Your task to perform on an android device: toggle location history Image 0: 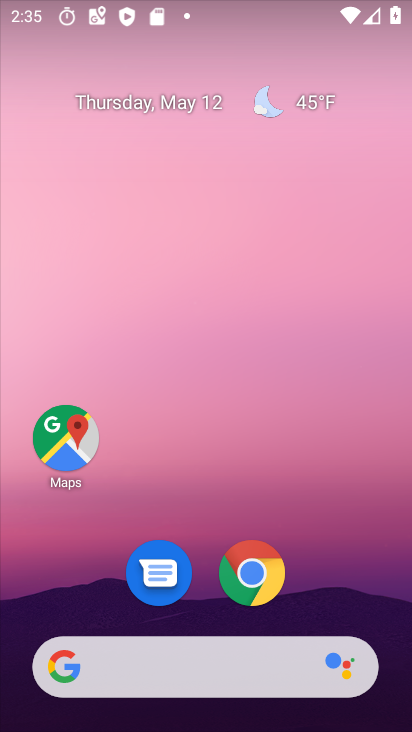
Step 0: drag from (196, 619) to (125, 2)
Your task to perform on an android device: toggle location history Image 1: 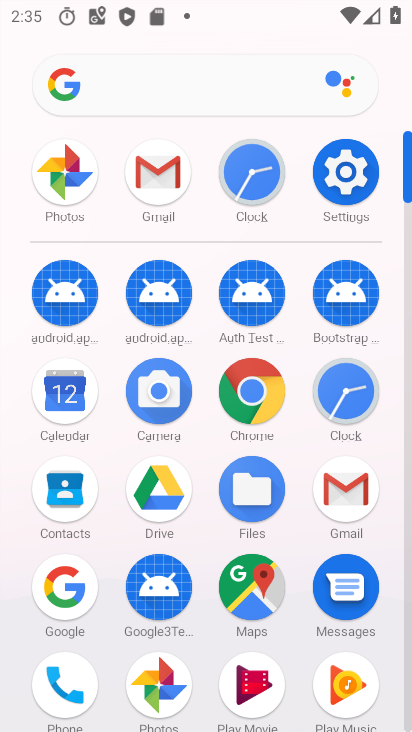
Step 1: click (331, 181)
Your task to perform on an android device: toggle location history Image 2: 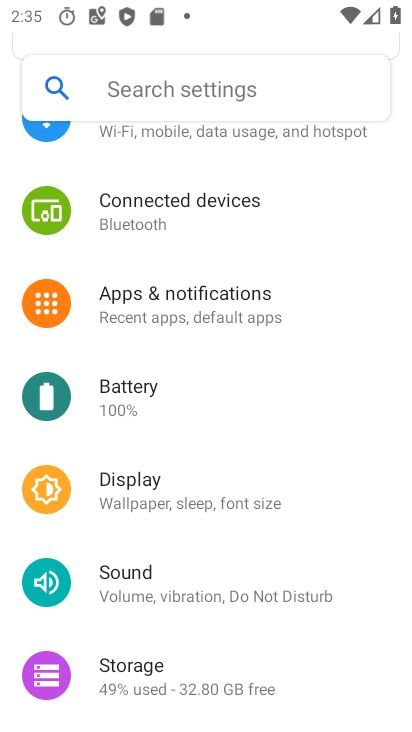
Step 2: drag from (207, 181) to (292, 647)
Your task to perform on an android device: toggle location history Image 3: 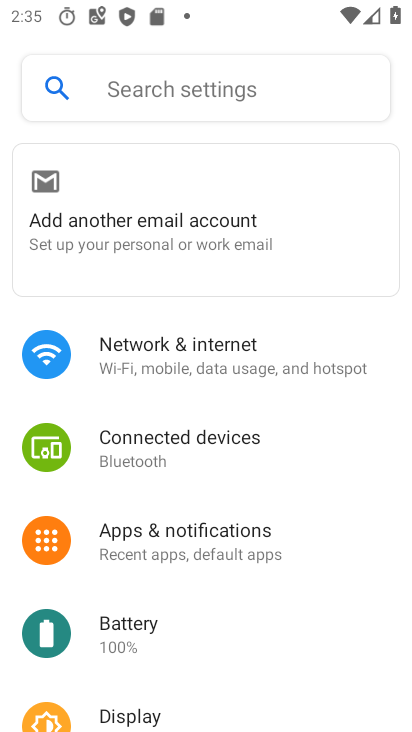
Step 3: drag from (177, 587) to (260, 57)
Your task to perform on an android device: toggle location history Image 4: 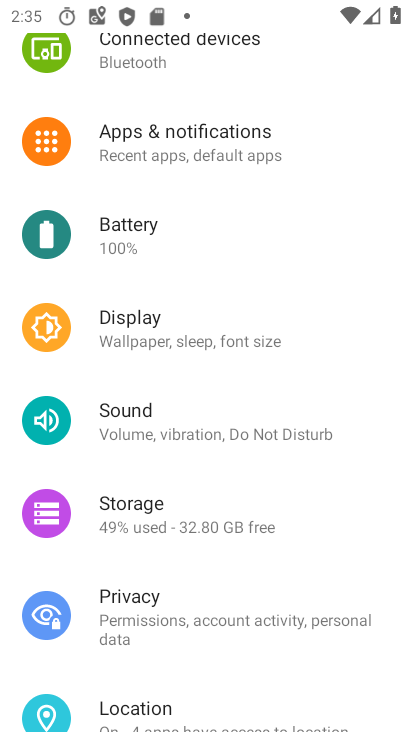
Step 4: click (143, 698)
Your task to perform on an android device: toggle location history Image 5: 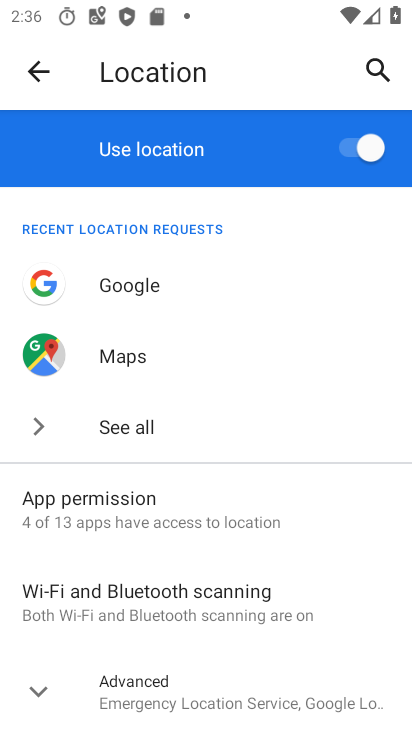
Step 5: drag from (113, 663) to (133, 228)
Your task to perform on an android device: toggle location history Image 6: 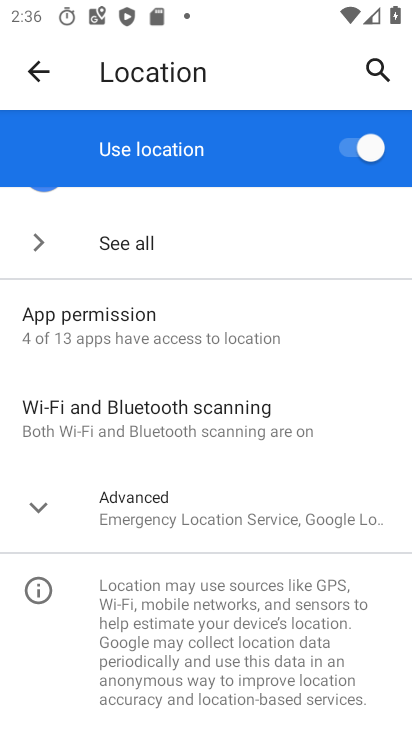
Step 6: click (199, 519)
Your task to perform on an android device: toggle location history Image 7: 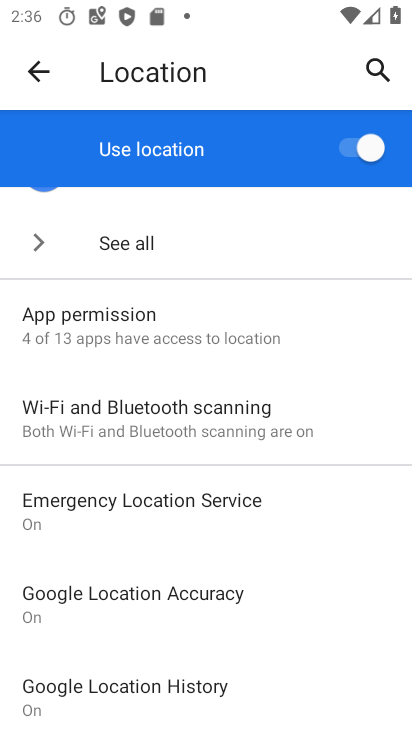
Step 7: click (192, 705)
Your task to perform on an android device: toggle location history Image 8: 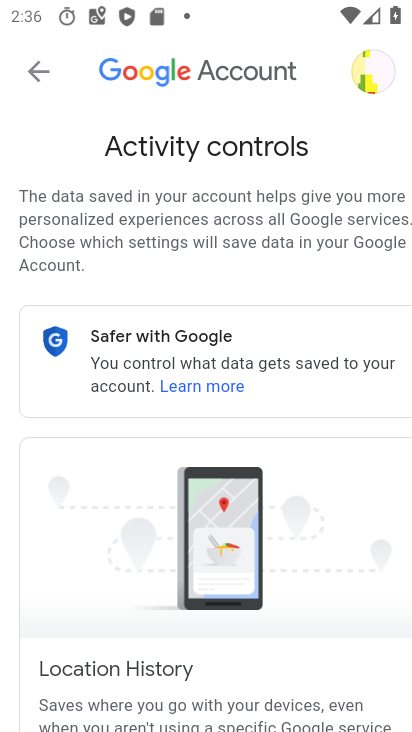
Step 8: drag from (151, 649) to (256, 300)
Your task to perform on an android device: toggle location history Image 9: 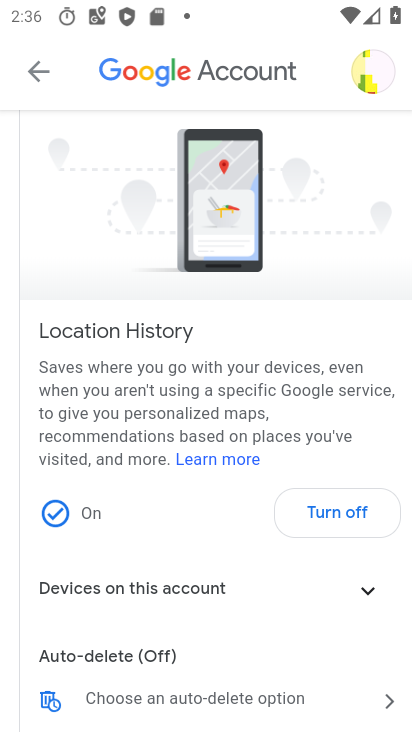
Step 9: click (359, 509)
Your task to perform on an android device: toggle location history Image 10: 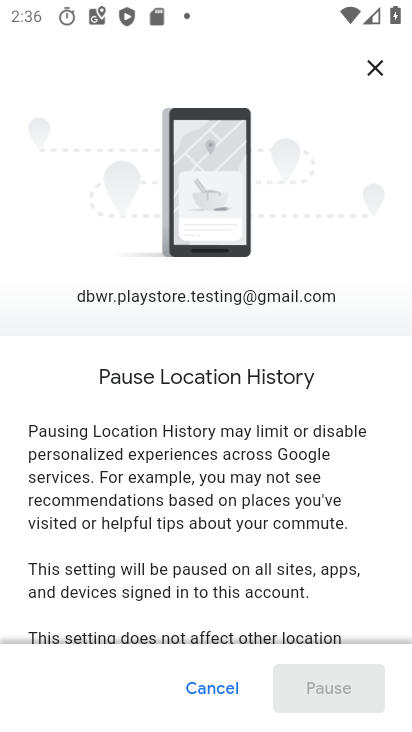
Step 10: drag from (249, 624) to (295, 216)
Your task to perform on an android device: toggle location history Image 11: 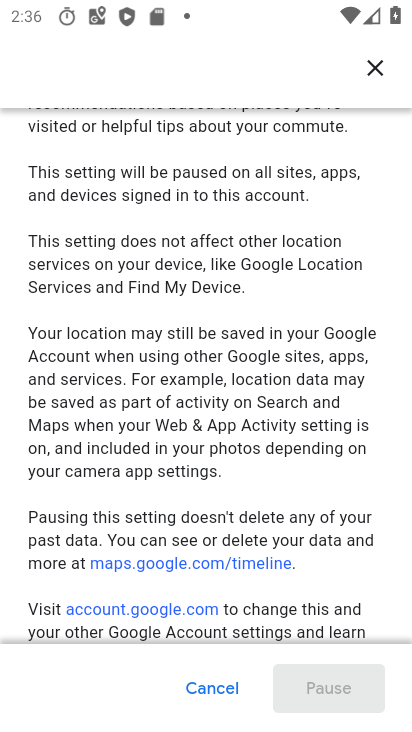
Step 11: drag from (183, 661) to (245, 123)
Your task to perform on an android device: toggle location history Image 12: 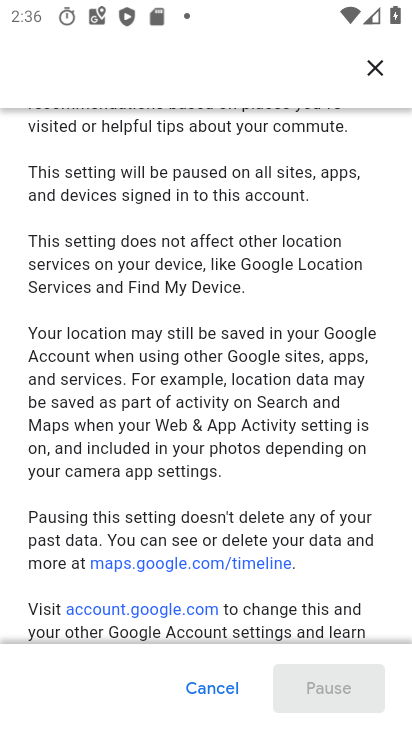
Step 12: drag from (196, 593) to (207, 129)
Your task to perform on an android device: toggle location history Image 13: 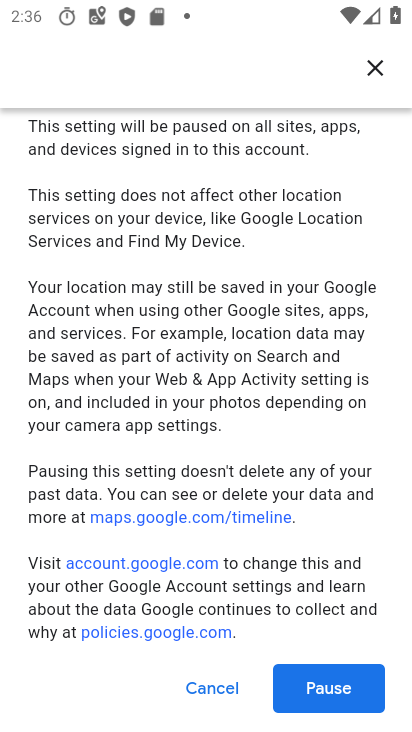
Step 13: click (362, 691)
Your task to perform on an android device: toggle location history Image 14: 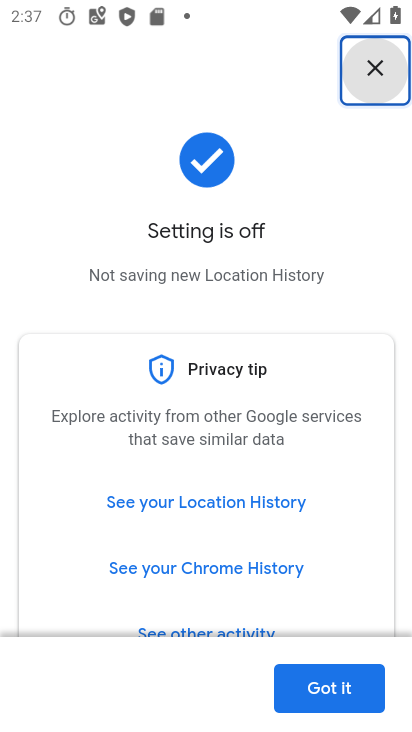
Step 14: click (347, 684)
Your task to perform on an android device: toggle location history Image 15: 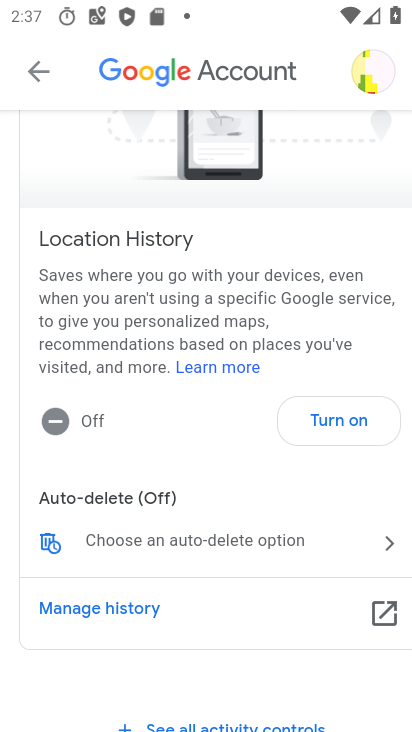
Step 15: task complete